Your task to perform on an android device: open a new tab in the chrome app Image 0: 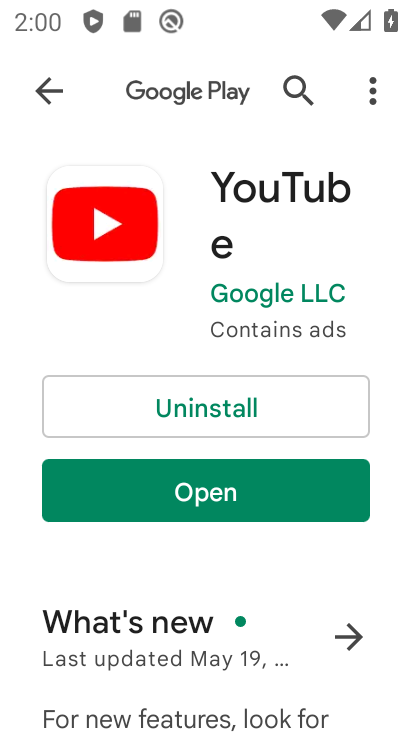
Step 0: press home button
Your task to perform on an android device: open a new tab in the chrome app Image 1: 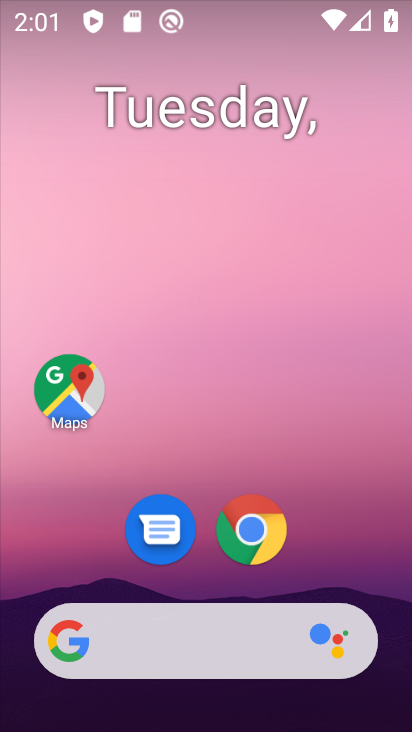
Step 1: click (257, 553)
Your task to perform on an android device: open a new tab in the chrome app Image 2: 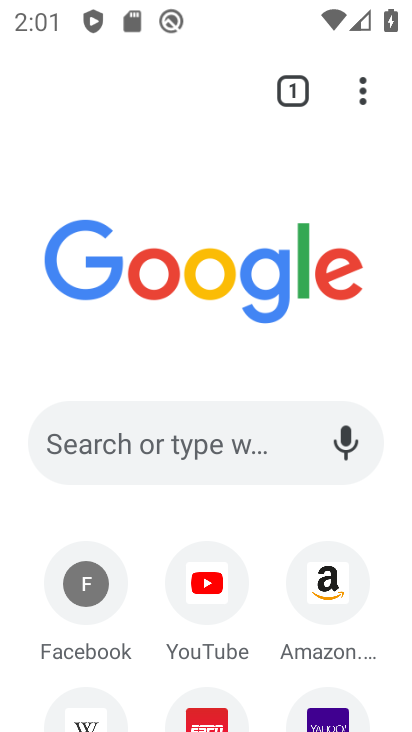
Step 2: click (355, 113)
Your task to perform on an android device: open a new tab in the chrome app Image 3: 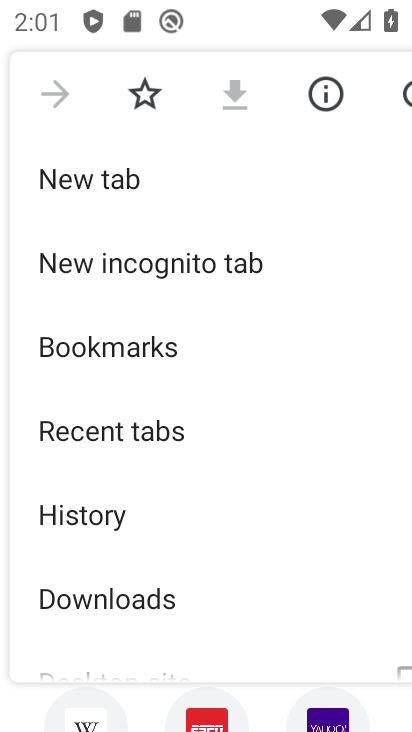
Step 3: click (192, 185)
Your task to perform on an android device: open a new tab in the chrome app Image 4: 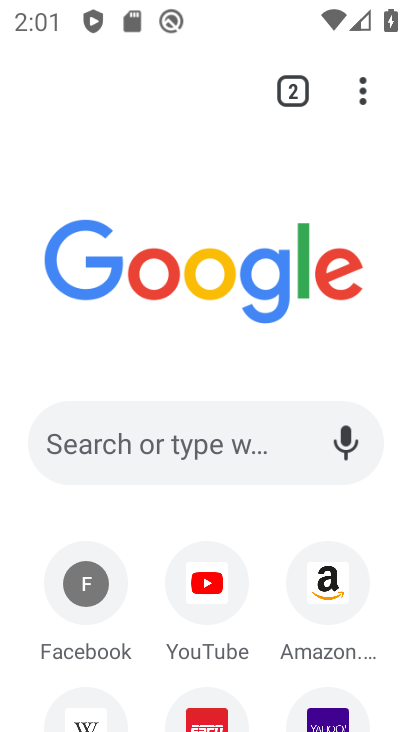
Step 4: task complete